Your task to perform on an android device: toggle sleep mode Image 0: 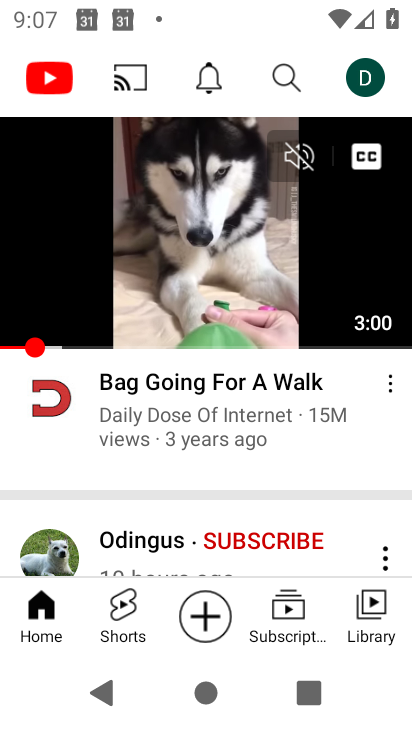
Step 0: press home button
Your task to perform on an android device: toggle sleep mode Image 1: 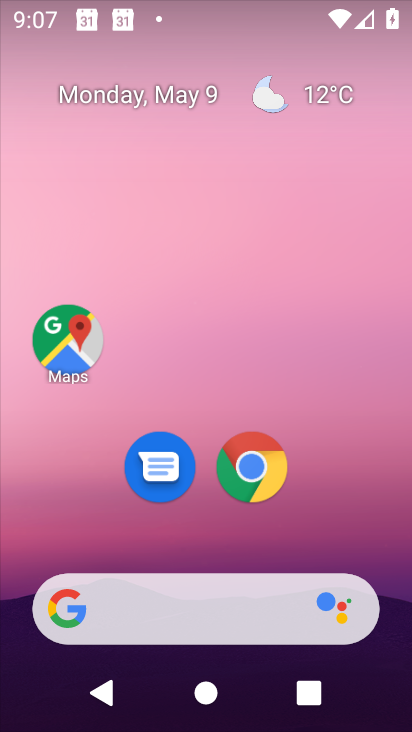
Step 1: drag from (356, 360) to (350, 5)
Your task to perform on an android device: toggle sleep mode Image 2: 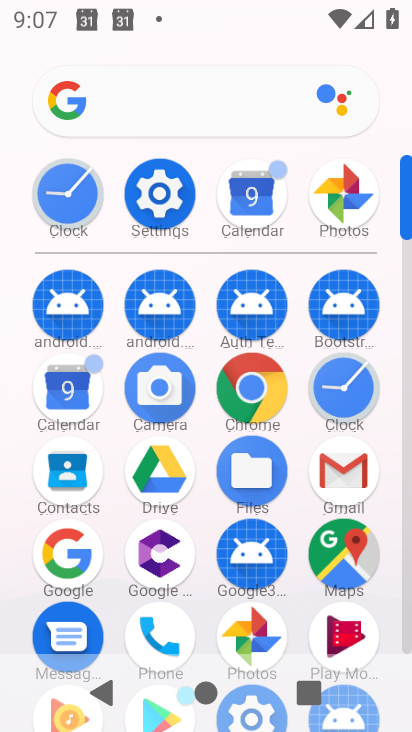
Step 2: click (170, 197)
Your task to perform on an android device: toggle sleep mode Image 3: 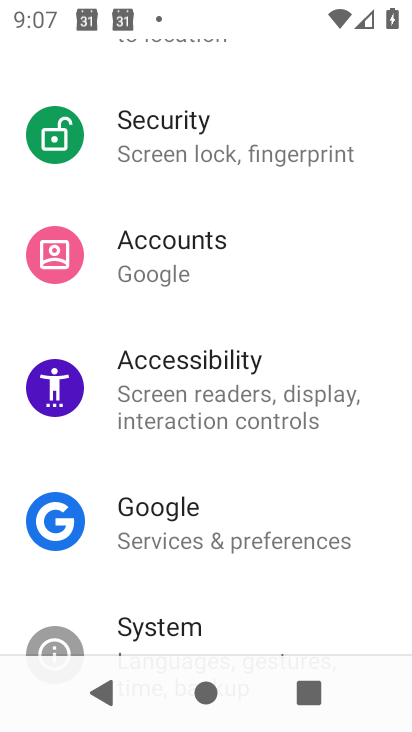
Step 3: drag from (314, 250) to (296, 526)
Your task to perform on an android device: toggle sleep mode Image 4: 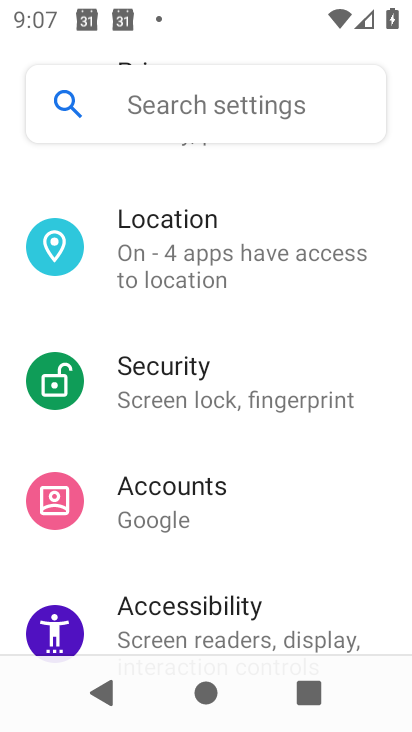
Step 4: drag from (288, 257) to (286, 539)
Your task to perform on an android device: toggle sleep mode Image 5: 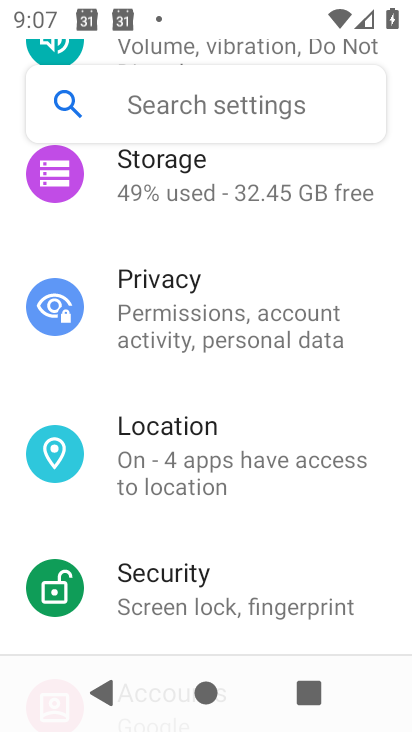
Step 5: drag from (253, 253) to (237, 609)
Your task to perform on an android device: toggle sleep mode Image 6: 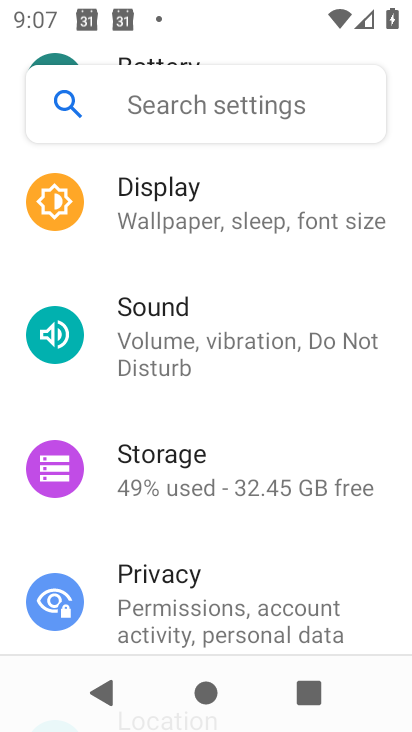
Step 6: drag from (240, 307) to (240, 541)
Your task to perform on an android device: toggle sleep mode Image 7: 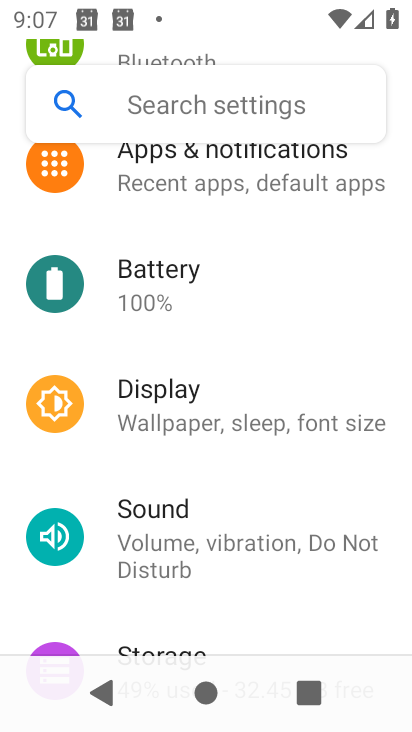
Step 7: click (168, 426)
Your task to perform on an android device: toggle sleep mode Image 8: 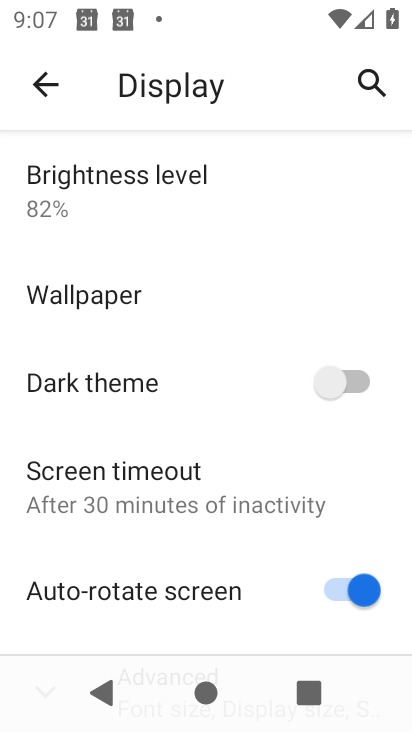
Step 8: drag from (163, 500) to (159, 154)
Your task to perform on an android device: toggle sleep mode Image 9: 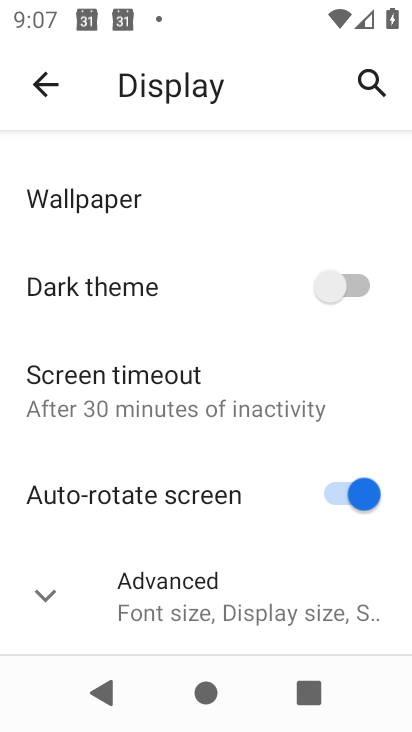
Step 9: click (42, 603)
Your task to perform on an android device: toggle sleep mode Image 10: 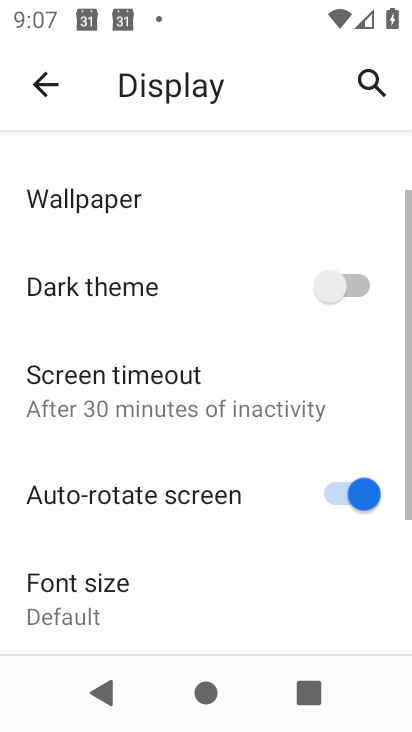
Step 10: task complete